Your task to perform on an android device: make emails show in primary in the gmail app Image 0: 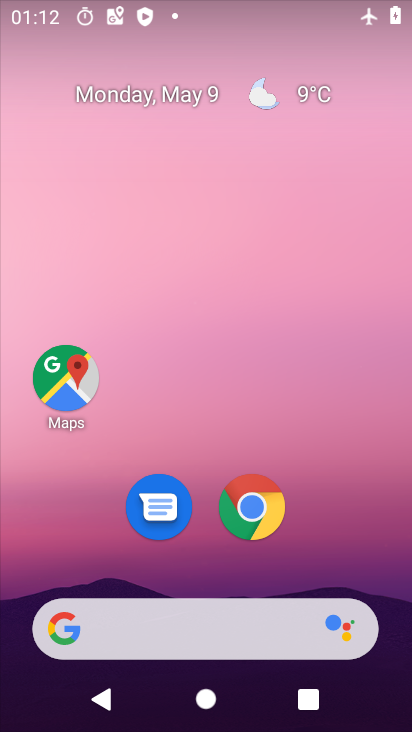
Step 0: drag from (221, 730) to (222, 98)
Your task to perform on an android device: make emails show in primary in the gmail app Image 1: 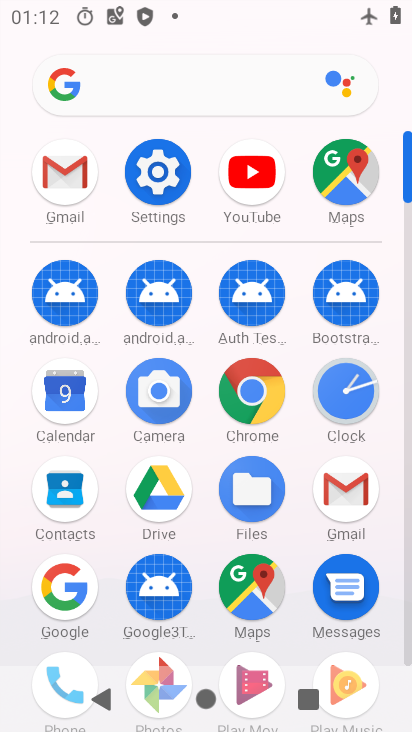
Step 1: click (358, 485)
Your task to perform on an android device: make emails show in primary in the gmail app Image 2: 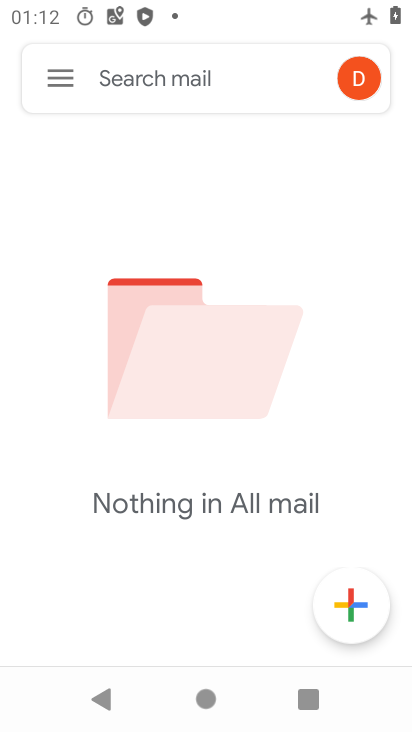
Step 2: click (56, 78)
Your task to perform on an android device: make emails show in primary in the gmail app Image 3: 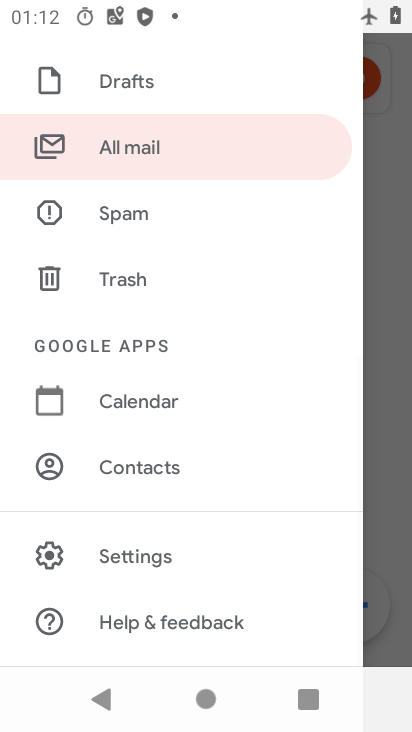
Step 3: click (144, 555)
Your task to perform on an android device: make emails show in primary in the gmail app Image 4: 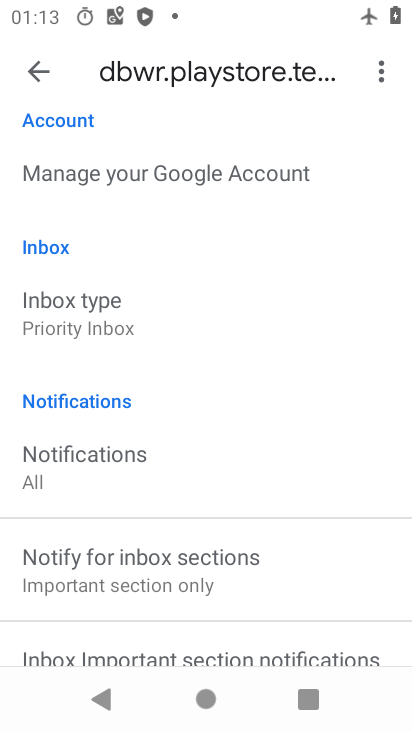
Step 4: drag from (185, 204) to (194, 339)
Your task to perform on an android device: make emails show in primary in the gmail app Image 5: 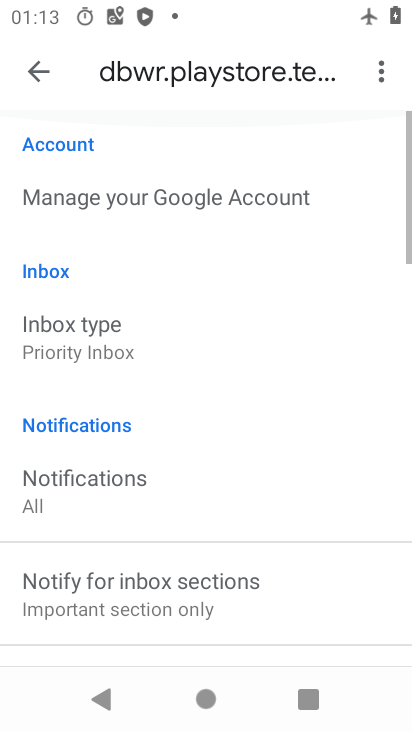
Step 5: click (71, 345)
Your task to perform on an android device: make emails show in primary in the gmail app Image 6: 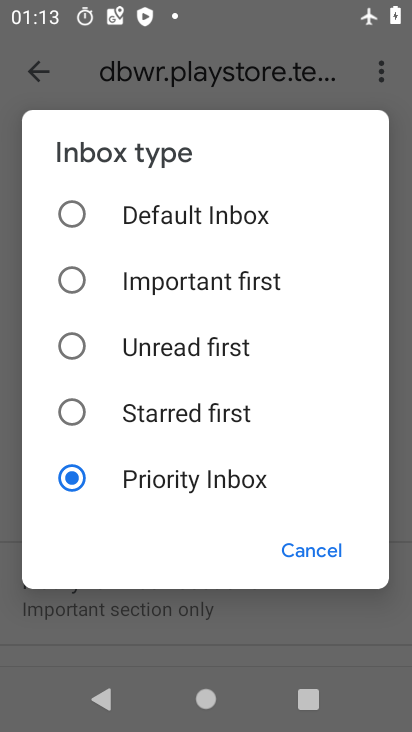
Step 6: click (74, 212)
Your task to perform on an android device: make emails show in primary in the gmail app Image 7: 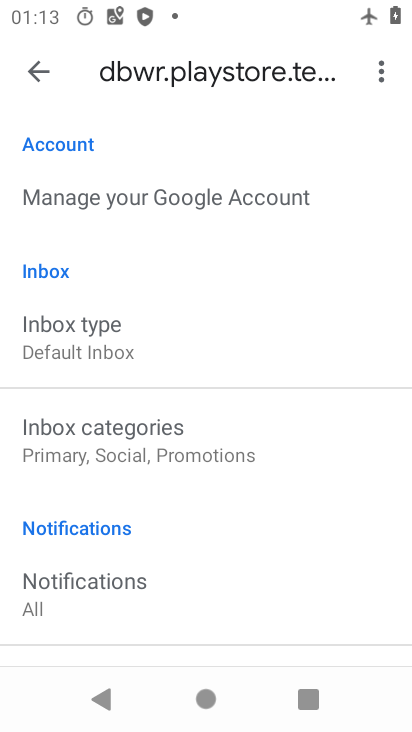
Step 7: click (129, 451)
Your task to perform on an android device: make emails show in primary in the gmail app Image 8: 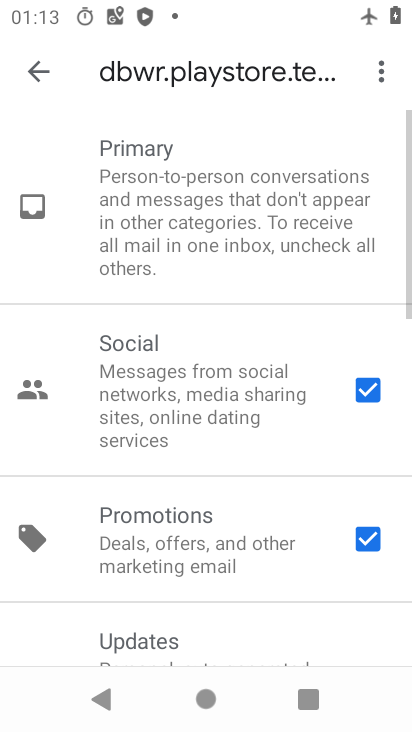
Step 8: click (365, 385)
Your task to perform on an android device: make emails show in primary in the gmail app Image 9: 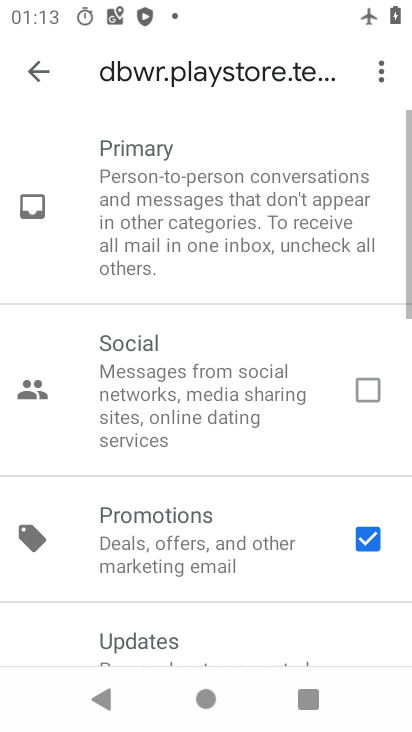
Step 9: click (368, 542)
Your task to perform on an android device: make emails show in primary in the gmail app Image 10: 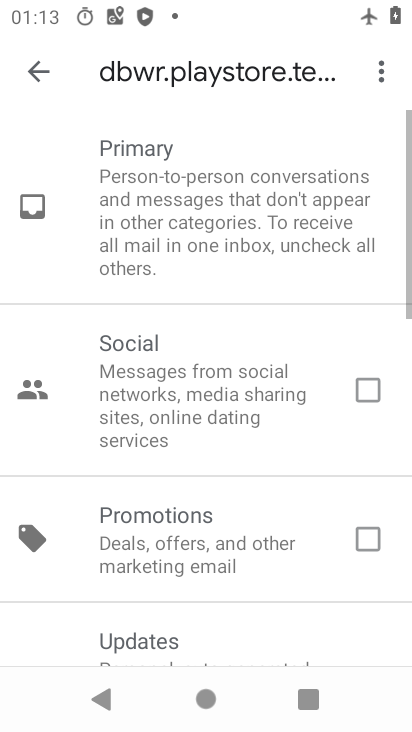
Step 10: drag from (249, 609) to (248, 284)
Your task to perform on an android device: make emails show in primary in the gmail app Image 11: 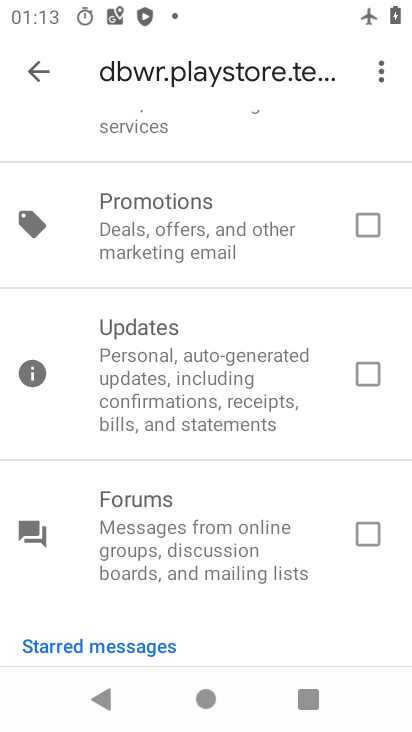
Step 11: drag from (286, 622) to (277, 234)
Your task to perform on an android device: make emails show in primary in the gmail app Image 12: 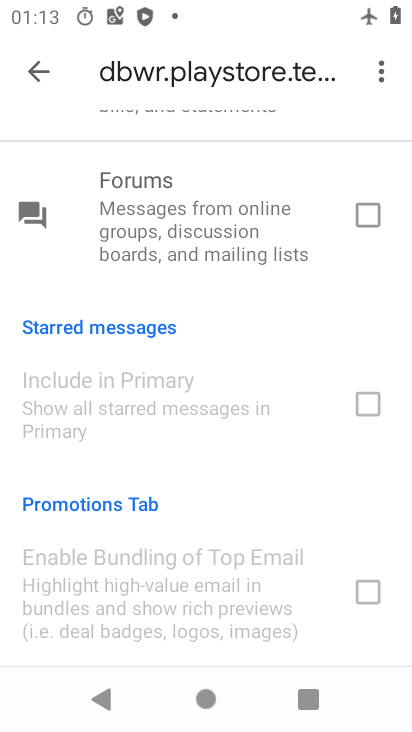
Step 12: click (35, 68)
Your task to perform on an android device: make emails show in primary in the gmail app Image 13: 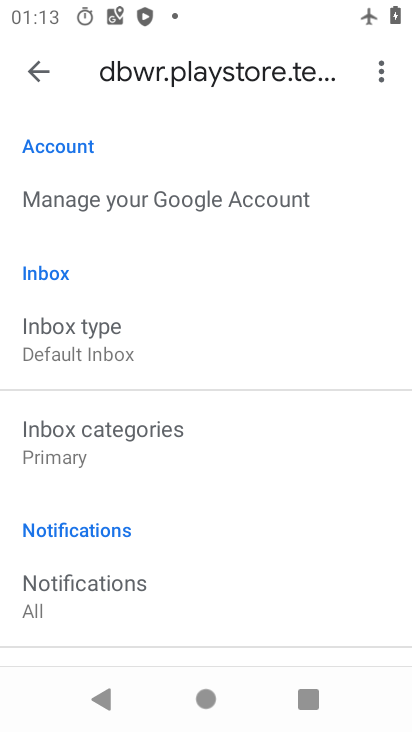
Step 13: task complete